Your task to perform on an android device: Search for pizza restaurants on Maps Image 0: 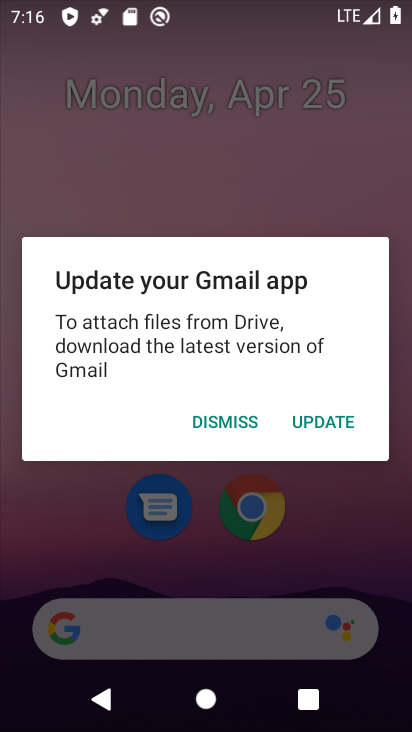
Step 0: press home button
Your task to perform on an android device: Search for pizza restaurants on Maps Image 1: 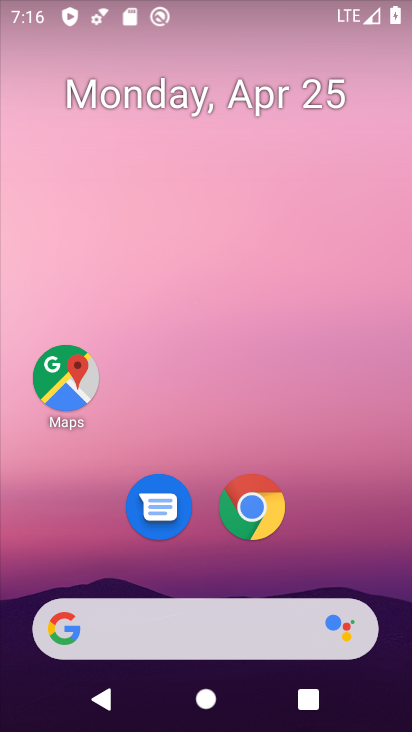
Step 1: click (80, 381)
Your task to perform on an android device: Search for pizza restaurants on Maps Image 2: 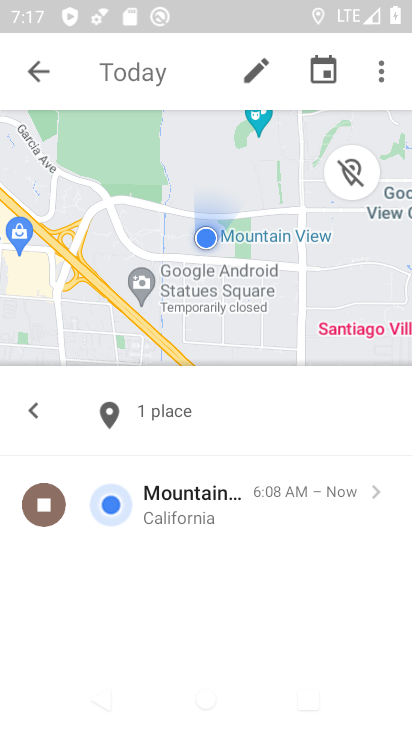
Step 2: click (26, 63)
Your task to perform on an android device: Search for pizza restaurants on Maps Image 3: 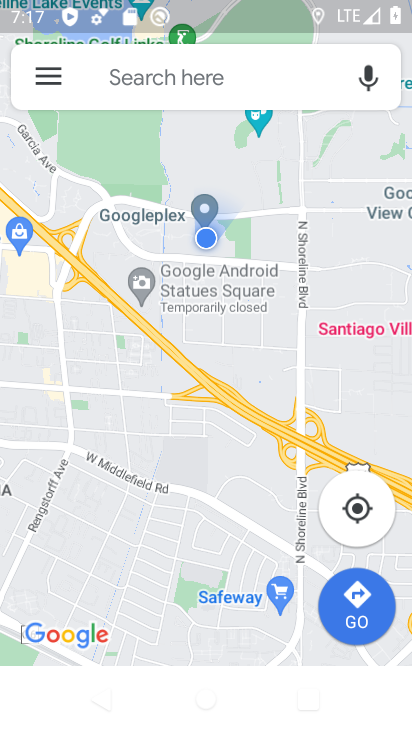
Step 3: click (144, 83)
Your task to perform on an android device: Search for pizza restaurants on Maps Image 4: 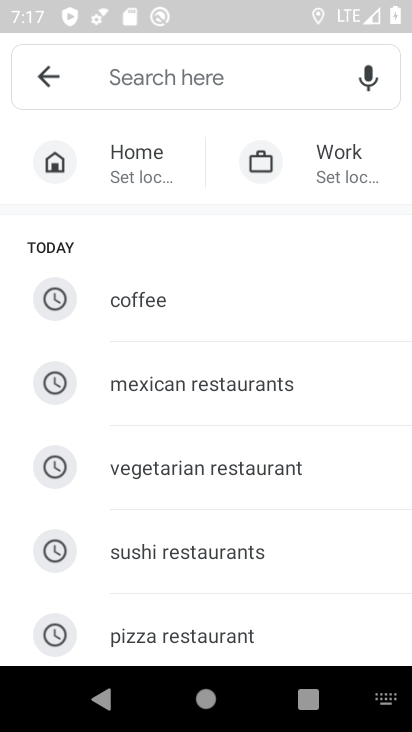
Step 4: type "pizza restaurants "
Your task to perform on an android device: Search for pizza restaurants on Maps Image 5: 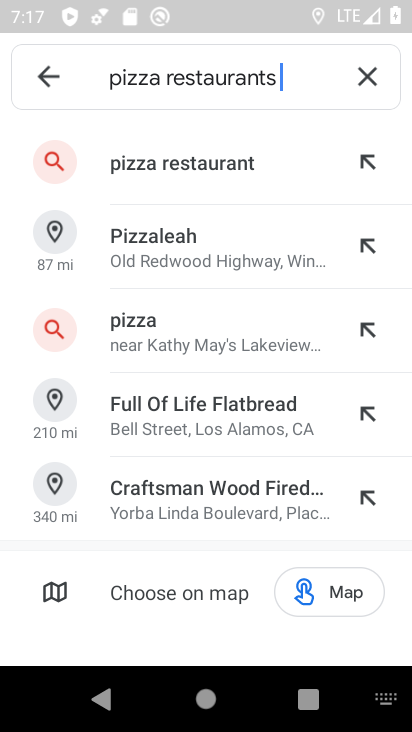
Step 5: click (138, 164)
Your task to perform on an android device: Search for pizza restaurants on Maps Image 6: 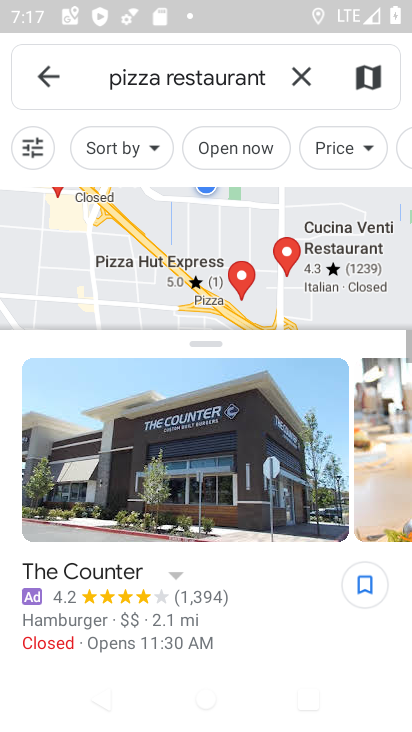
Step 6: task complete